Your task to perform on an android device: set default search engine in the chrome app Image 0: 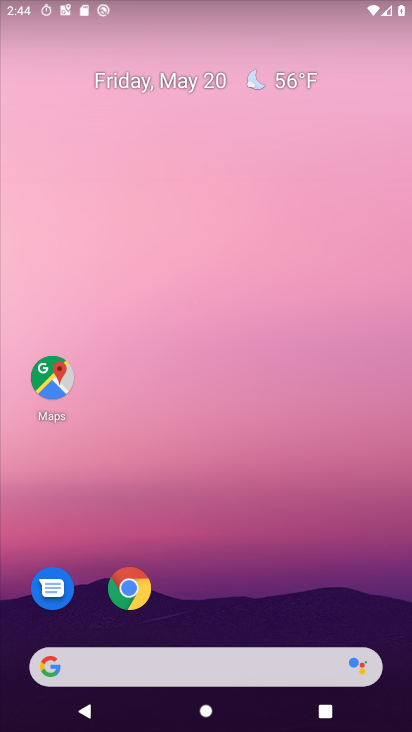
Step 0: drag from (2, 705) to (248, 253)
Your task to perform on an android device: set default search engine in the chrome app Image 1: 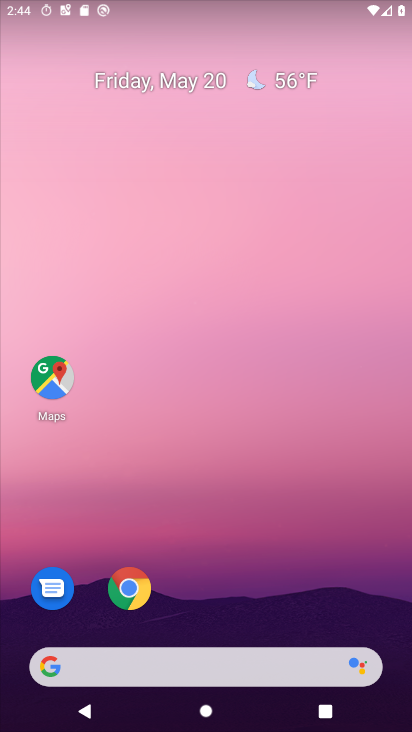
Step 1: click (127, 594)
Your task to perform on an android device: set default search engine in the chrome app Image 2: 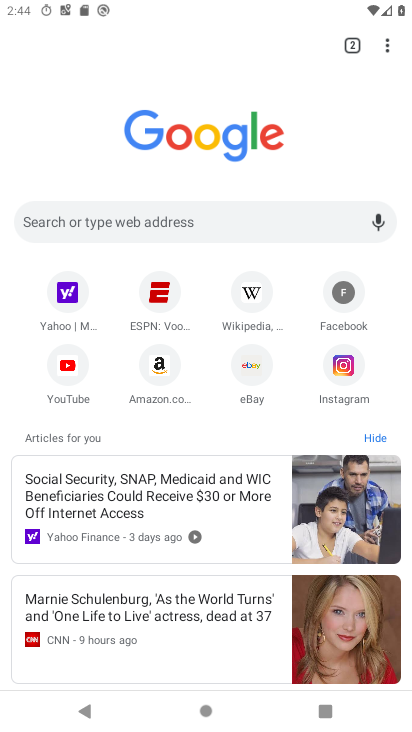
Step 2: click (391, 54)
Your task to perform on an android device: set default search engine in the chrome app Image 3: 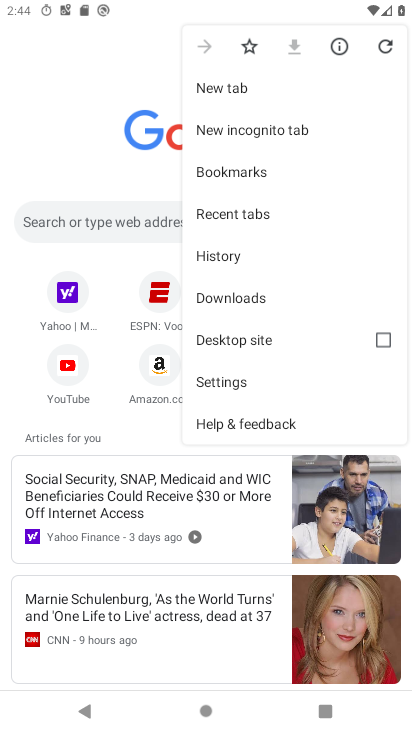
Step 3: click (256, 385)
Your task to perform on an android device: set default search engine in the chrome app Image 4: 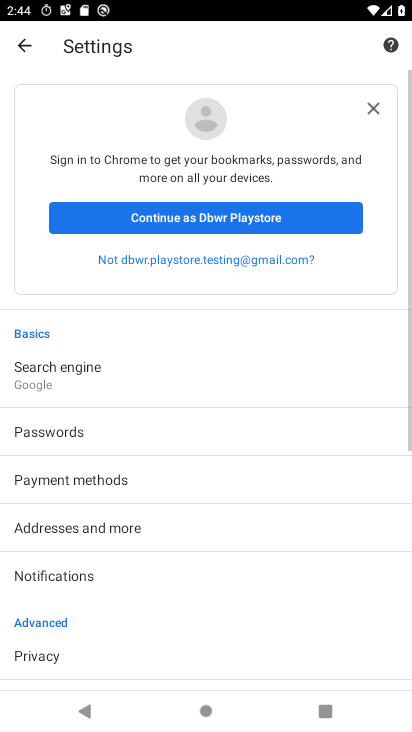
Step 4: click (89, 373)
Your task to perform on an android device: set default search engine in the chrome app Image 5: 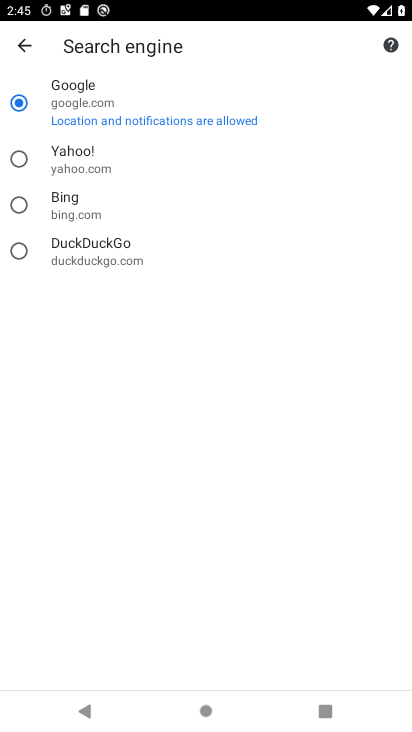
Step 5: task complete